Your task to perform on an android device: Open calendar and show me the first week of next month Image 0: 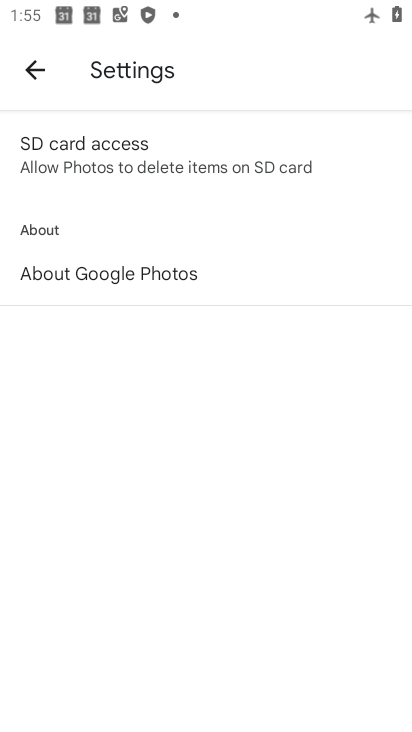
Step 0: press home button
Your task to perform on an android device: Open calendar and show me the first week of next month Image 1: 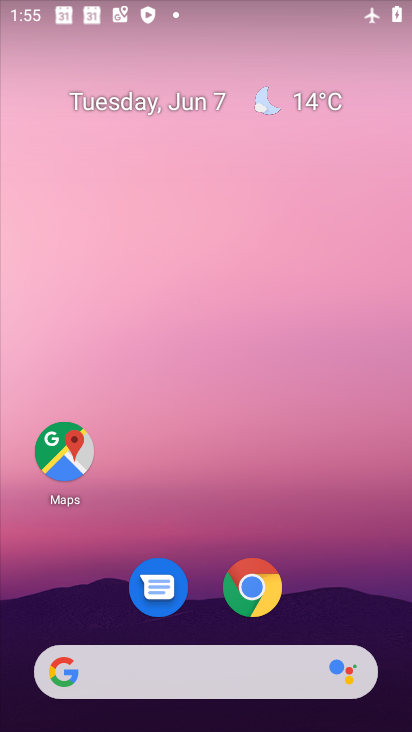
Step 1: drag from (306, 657) to (343, 21)
Your task to perform on an android device: Open calendar and show me the first week of next month Image 2: 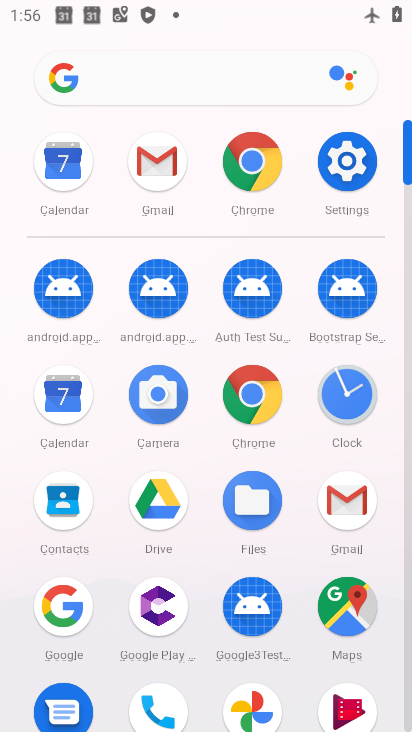
Step 2: click (78, 400)
Your task to perform on an android device: Open calendar and show me the first week of next month Image 3: 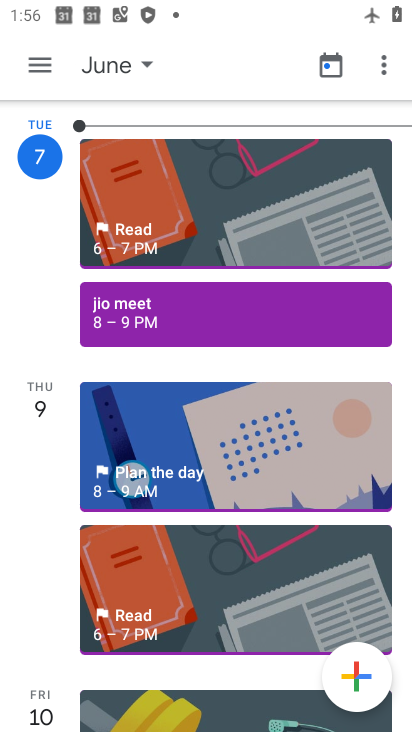
Step 3: click (143, 72)
Your task to perform on an android device: Open calendar and show me the first week of next month Image 4: 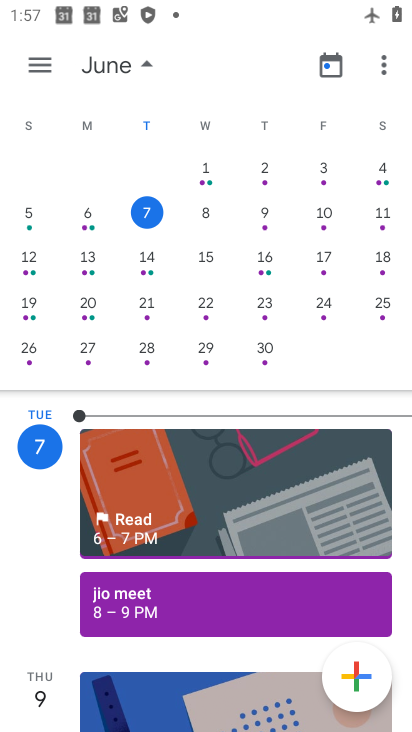
Step 4: drag from (350, 305) to (6, 336)
Your task to perform on an android device: Open calendar and show me the first week of next month Image 5: 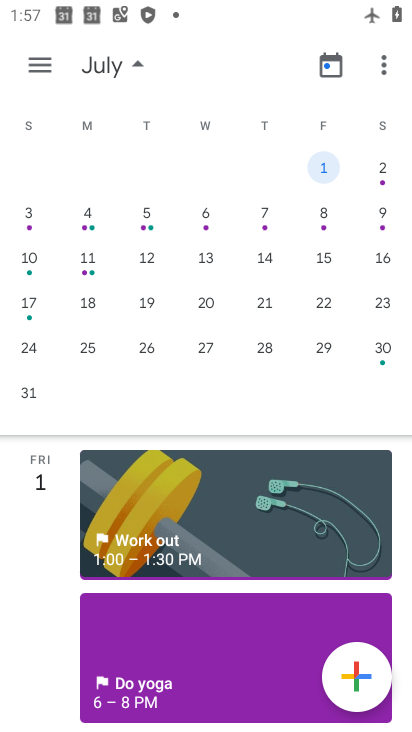
Step 5: click (29, 226)
Your task to perform on an android device: Open calendar and show me the first week of next month Image 6: 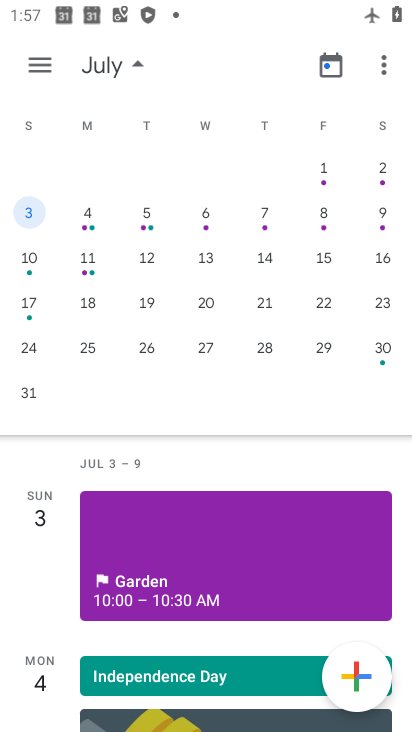
Step 6: task complete